Your task to perform on an android device: Open the phone app and click the voicemail tab. Image 0: 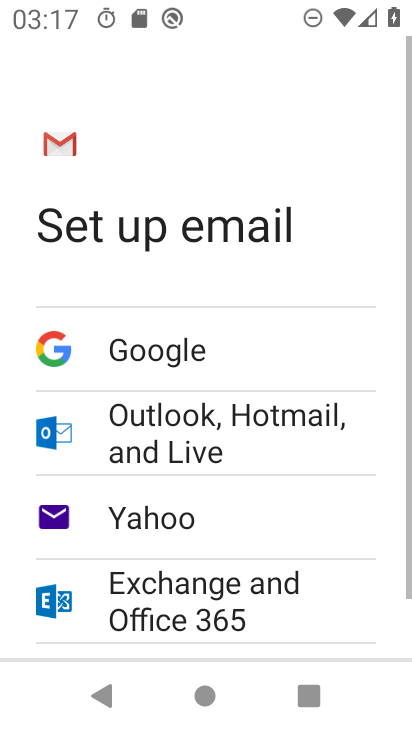
Step 0: press home button
Your task to perform on an android device: Open the phone app and click the voicemail tab. Image 1: 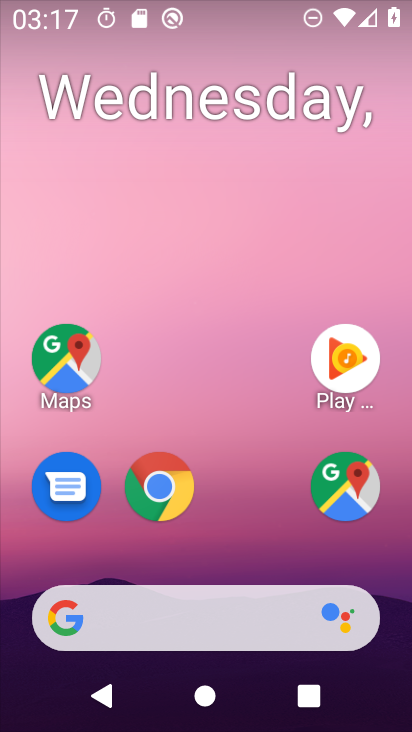
Step 1: drag from (266, 536) to (264, 180)
Your task to perform on an android device: Open the phone app and click the voicemail tab. Image 2: 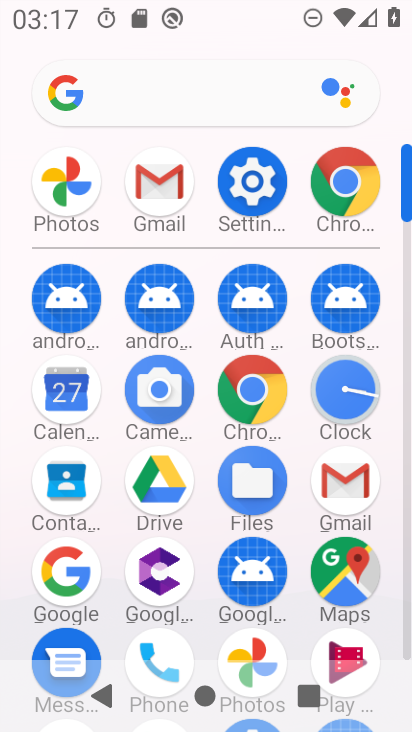
Step 2: drag from (388, 525) to (388, 339)
Your task to perform on an android device: Open the phone app and click the voicemail tab. Image 3: 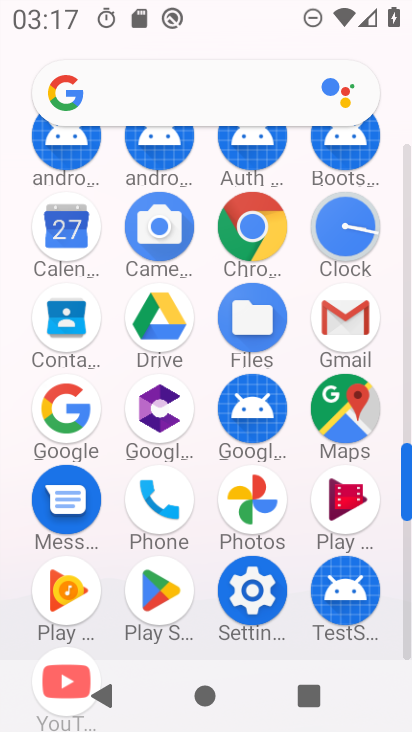
Step 3: click (166, 504)
Your task to perform on an android device: Open the phone app and click the voicemail tab. Image 4: 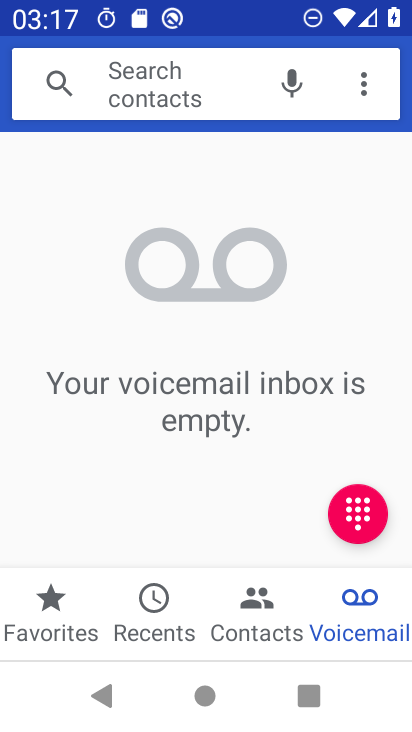
Step 4: task complete